Your task to perform on an android device: When is my next appointment? Image 0: 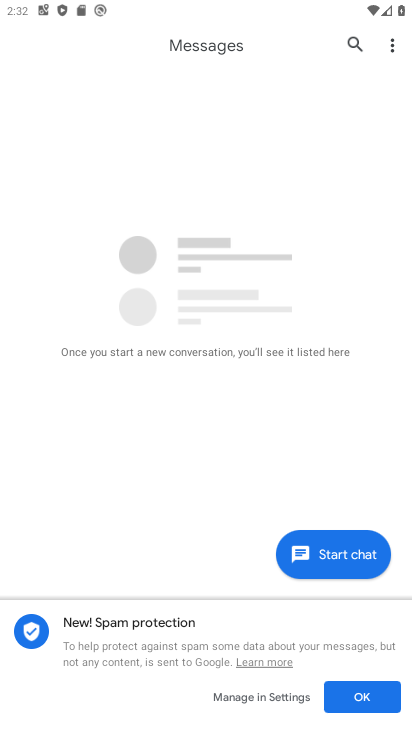
Step 0: press home button
Your task to perform on an android device: When is my next appointment? Image 1: 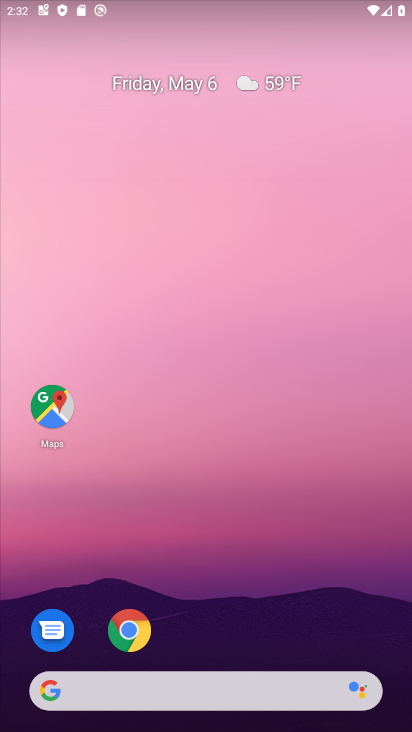
Step 1: drag from (243, 600) to (210, 153)
Your task to perform on an android device: When is my next appointment? Image 2: 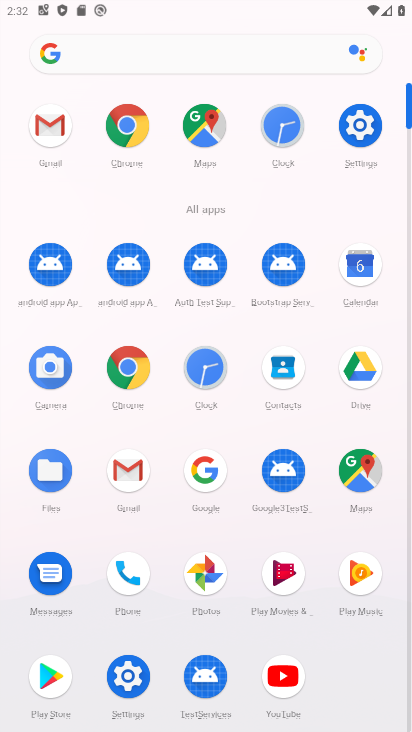
Step 2: click (345, 278)
Your task to perform on an android device: When is my next appointment? Image 3: 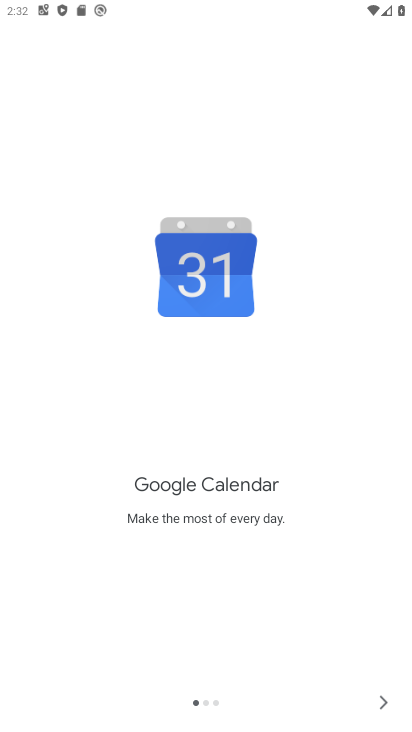
Step 3: click (378, 705)
Your task to perform on an android device: When is my next appointment? Image 4: 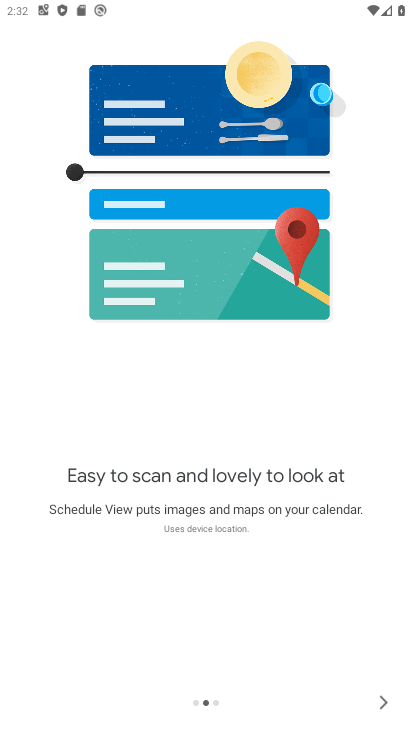
Step 4: click (378, 705)
Your task to perform on an android device: When is my next appointment? Image 5: 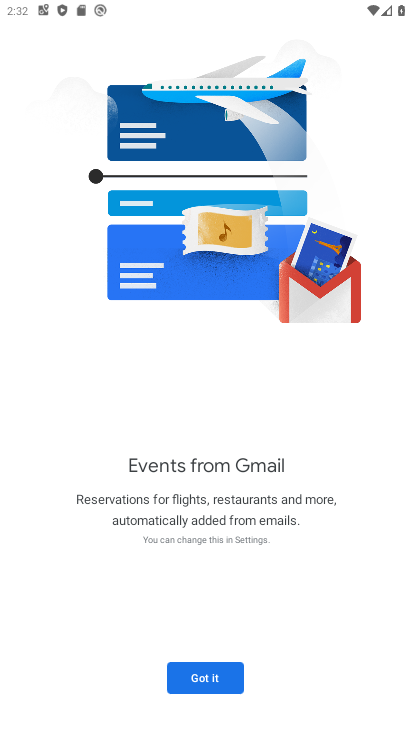
Step 5: click (225, 673)
Your task to perform on an android device: When is my next appointment? Image 6: 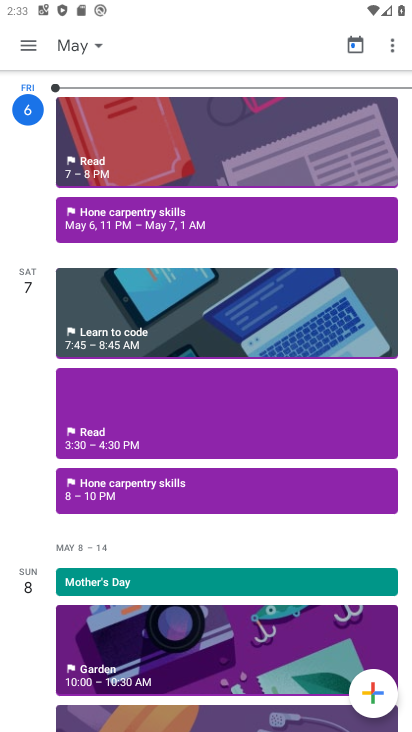
Step 6: click (87, 48)
Your task to perform on an android device: When is my next appointment? Image 7: 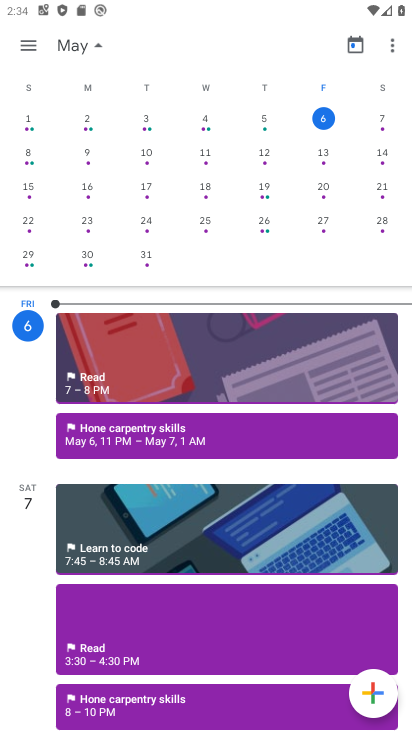
Step 7: click (322, 161)
Your task to perform on an android device: When is my next appointment? Image 8: 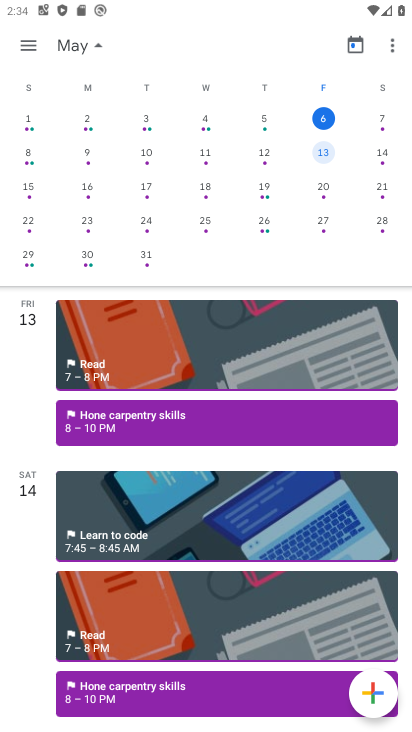
Step 8: task complete